Your task to perform on an android device: Is it going to rain today? Image 0: 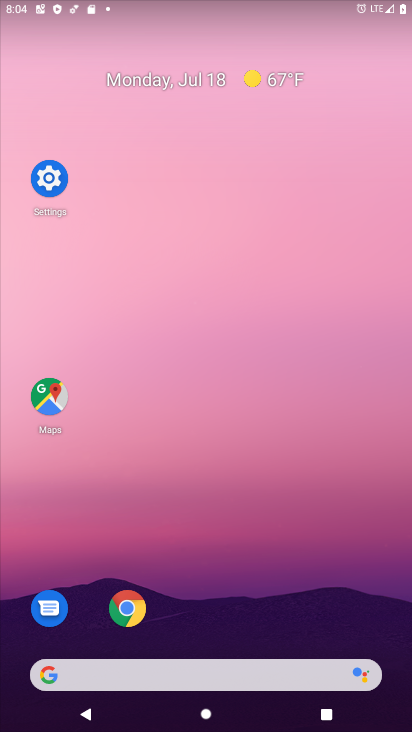
Step 0: drag from (231, 605) to (263, 83)
Your task to perform on an android device: Is it going to rain today? Image 1: 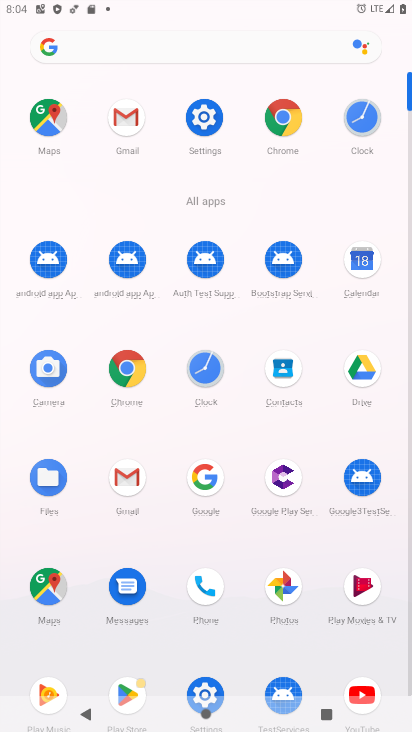
Step 1: click (208, 474)
Your task to perform on an android device: Is it going to rain today? Image 2: 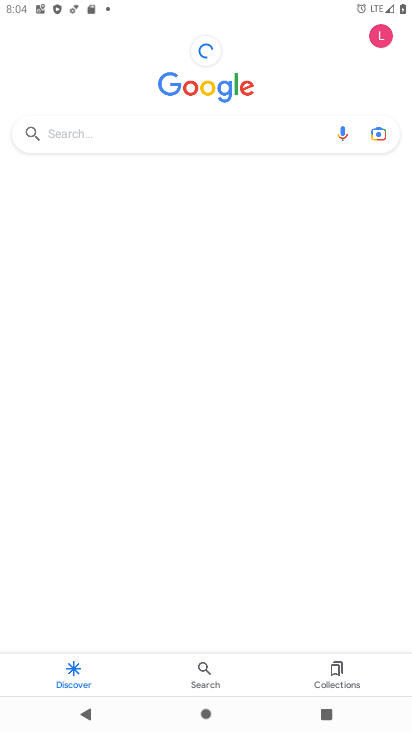
Step 2: click (191, 133)
Your task to perform on an android device: Is it going to rain today? Image 3: 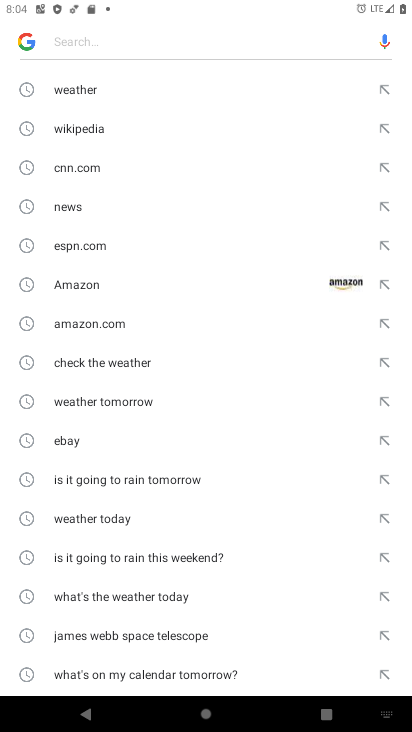
Step 3: click (78, 520)
Your task to perform on an android device: Is it going to rain today? Image 4: 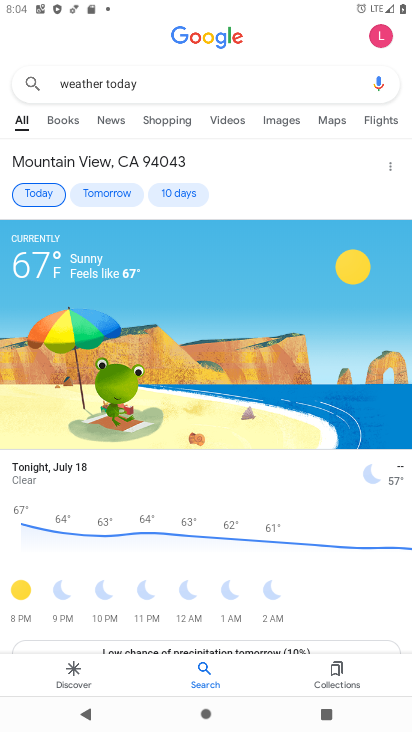
Step 4: task complete